Your task to perform on an android device: Go to settings Image 0: 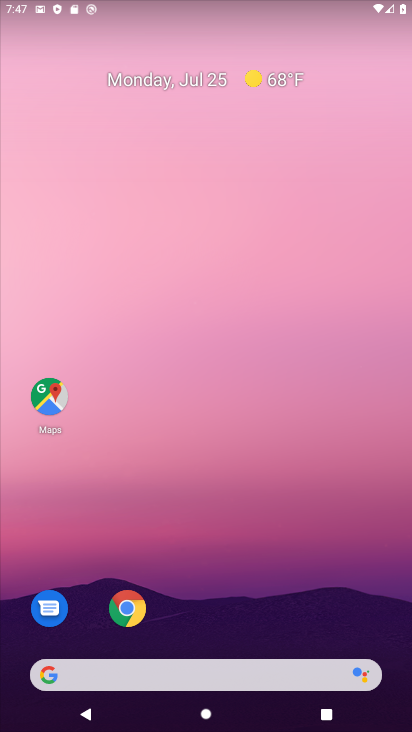
Step 0: drag from (231, 649) to (224, 86)
Your task to perform on an android device: Go to settings Image 1: 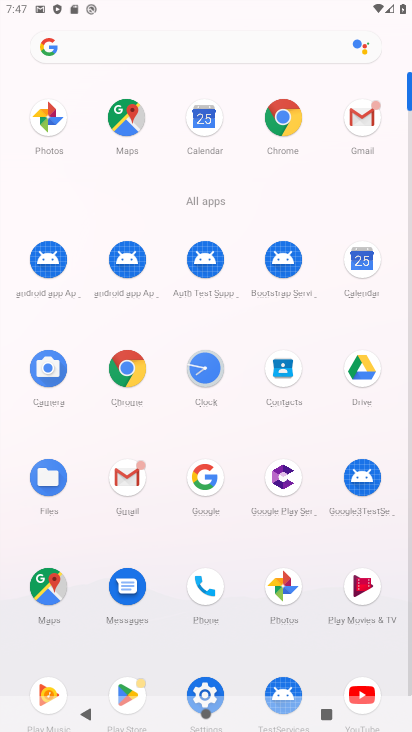
Step 1: click (204, 689)
Your task to perform on an android device: Go to settings Image 2: 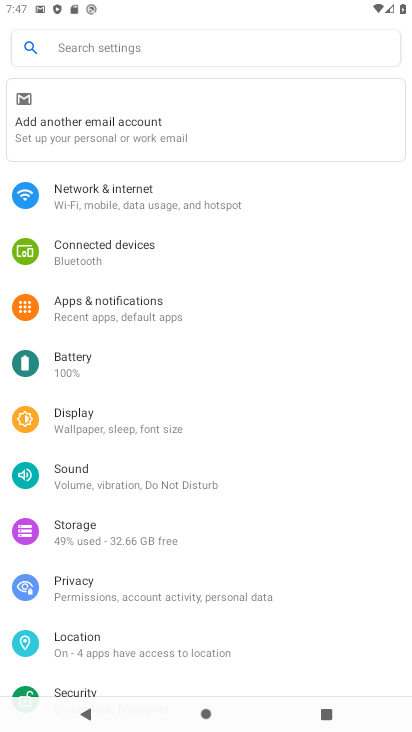
Step 2: task complete